Your task to perform on an android device: turn off airplane mode Image 0: 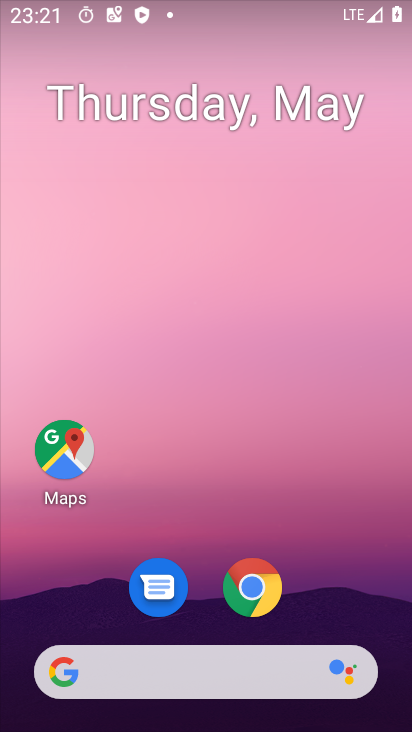
Step 0: drag from (360, 609) to (275, 16)
Your task to perform on an android device: turn off airplane mode Image 1: 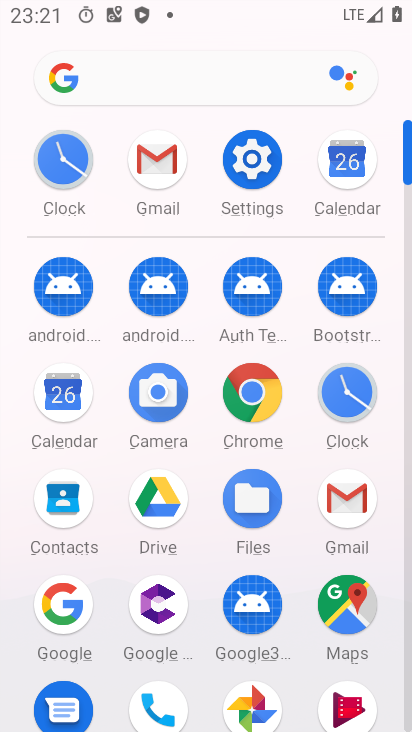
Step 1: click (254, 166)
Your task to perform on an android device: turn off airplane mode Image 2: 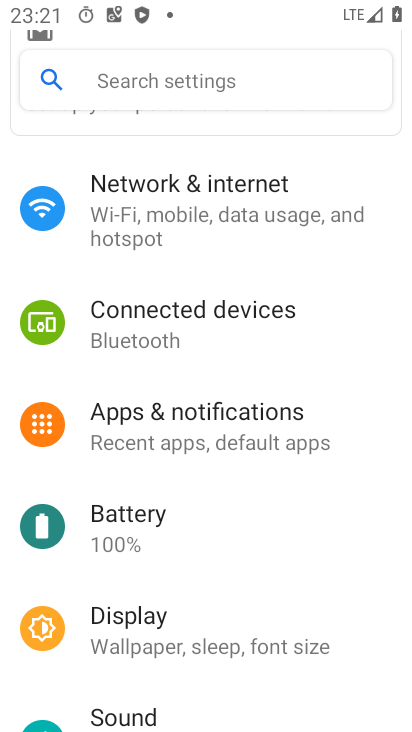
Step 2: click (213, 216)
Your task to perform on an android device: turn off airplane mode Image 3: 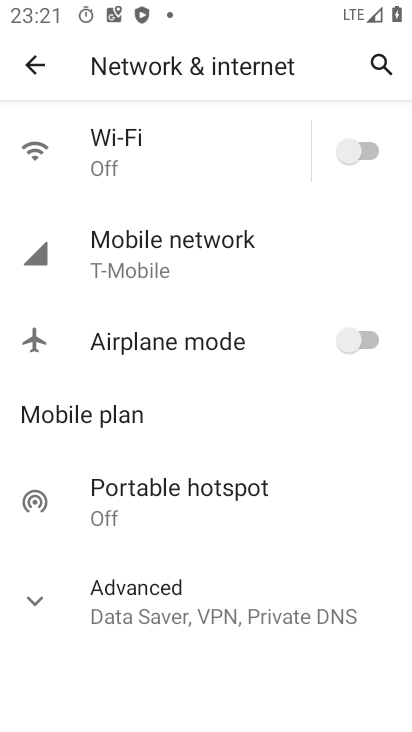
Step 3: task complete